Your task to perform on an android device: Open calendar and show me the first week of next month Image 0: 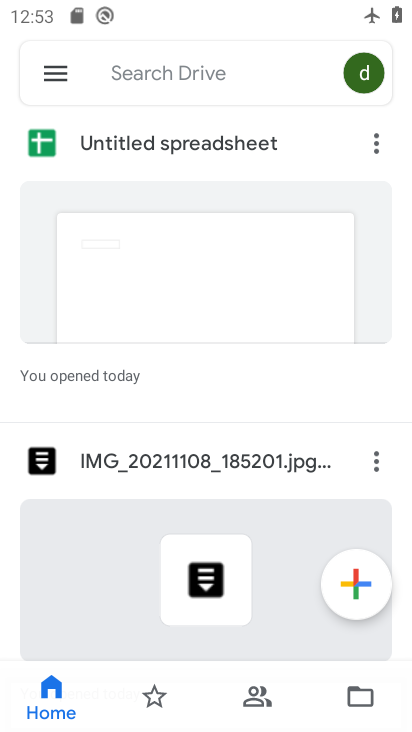
Step 0: press home button
Your task to perform on an android device: Open calendar and show me the first week of next month Image 1: 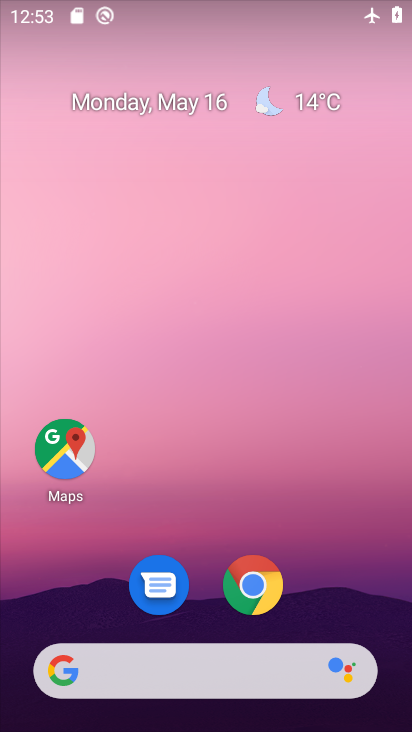
Step 1: drag from (222, 510) to (167, 48)
Your task to perform on an android device: Open calendar and show me the first week of next month Image 2: 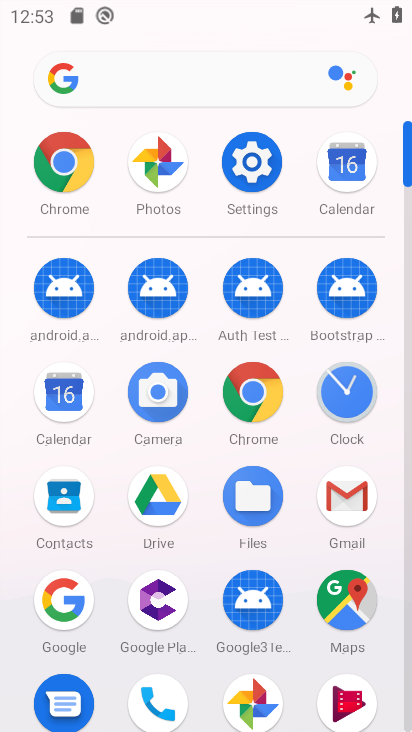
Step 2: click (343, 168)
Your task to perform on an android device: Open calendar and show me the first week of next month Image 3: 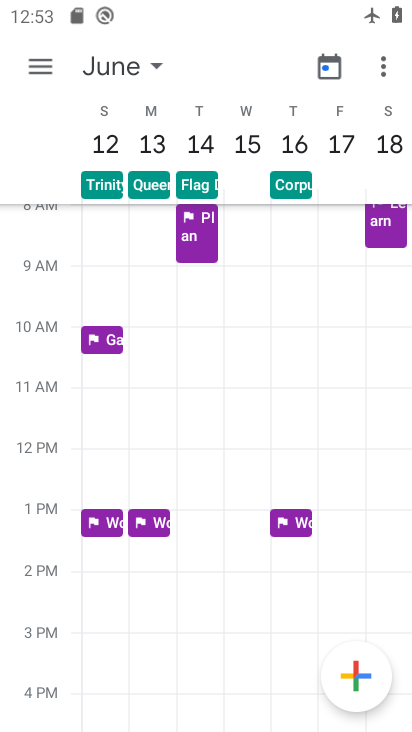
Step 3: task complete